Your task to perform on an android device: Go to Google Image 0: 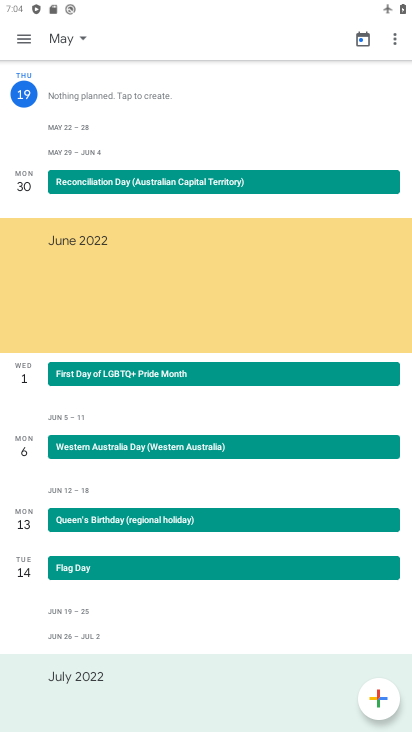
Step 0: press home button
Your task to perform on an android device: Go to Google Image 1: 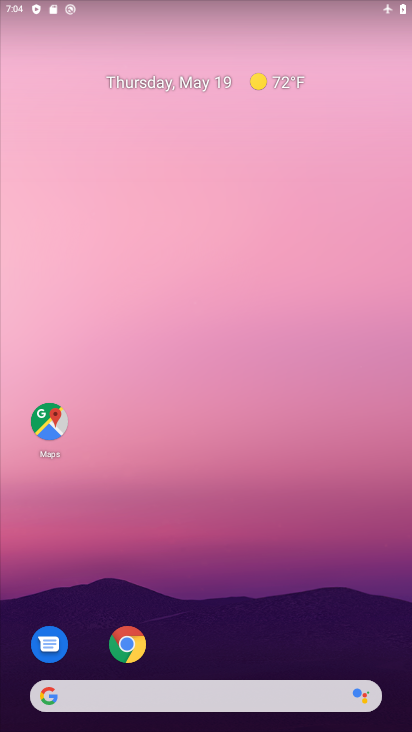
Step 1: drag from (304, 545) to (288, 133)
Your task to perform on an android device: Go to Google Image 2: 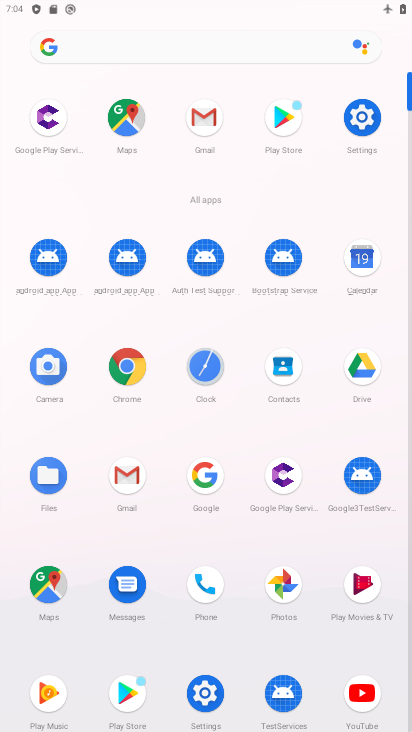
Step 2: click (197, 480)
Your task to perform on an android device: Go to Google Image 3: 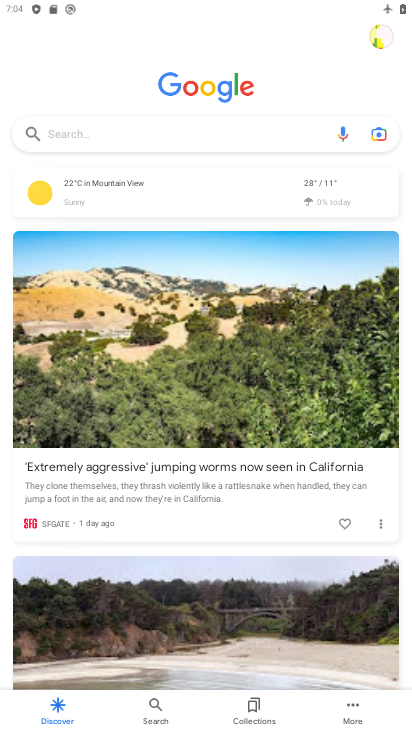
Step 3: task complete